Your task to perform on an android device: Open the phone app and click the voicemail tab. Image 0: 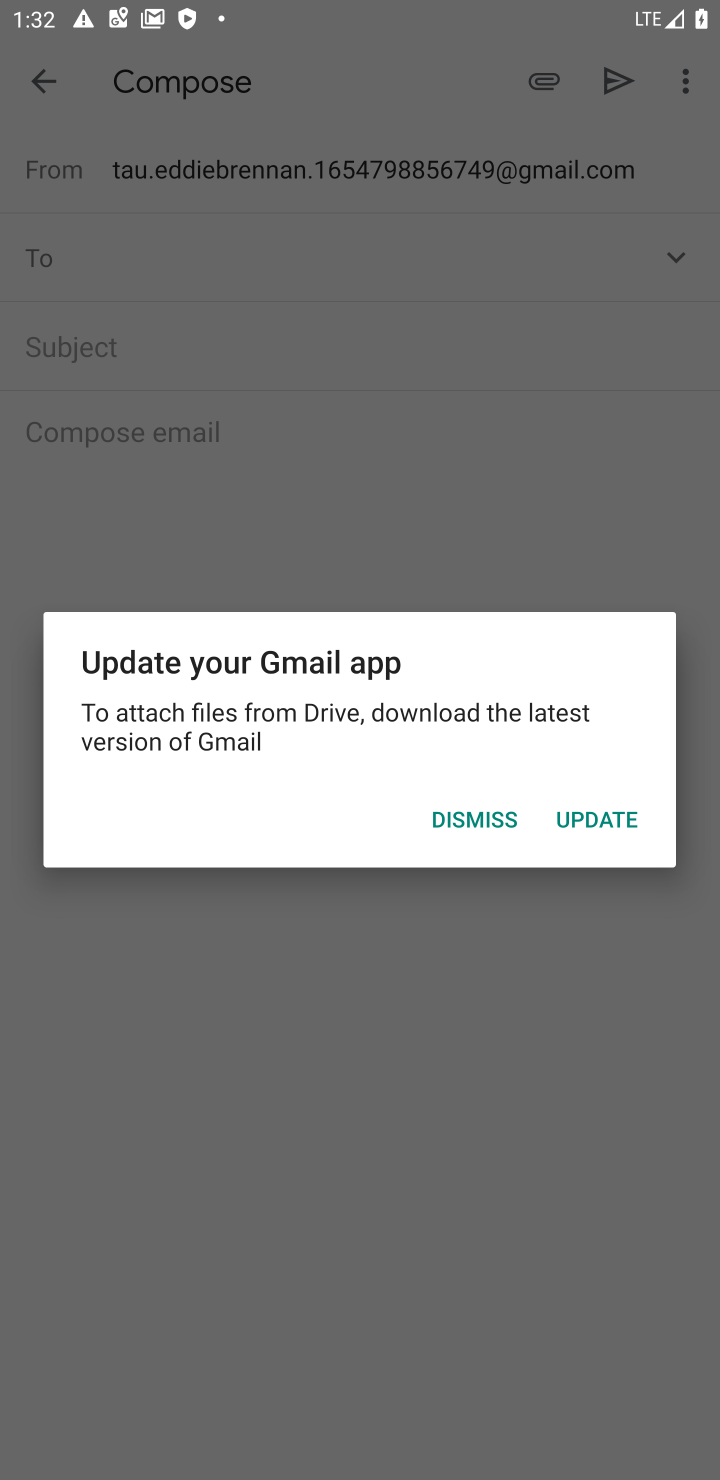
Step 0: press home button
Your task to perform on an android device: Open the phone app and click the voicemail tab. Image 1: 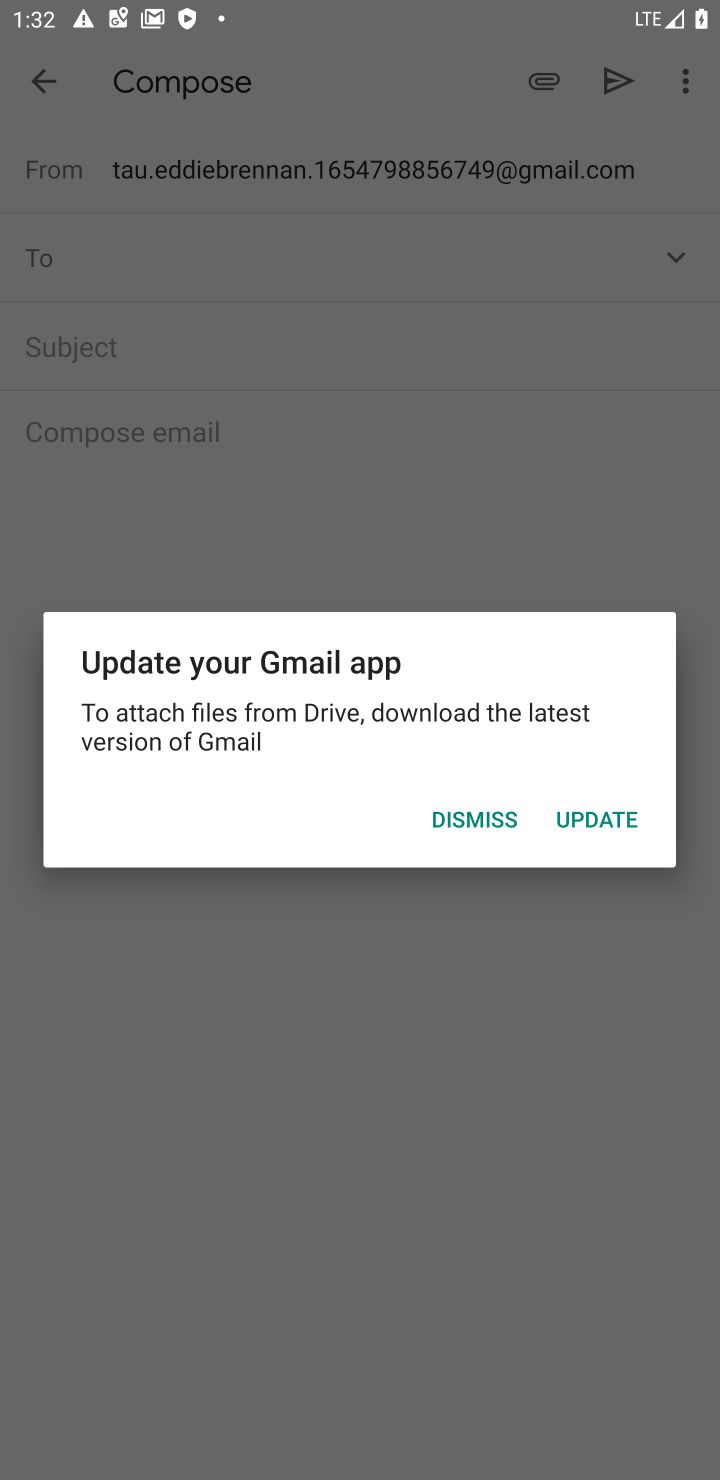
Step 1: press home button
Your task to perform on an android device: Open the phone app and click the voicemail tab. Image 2: 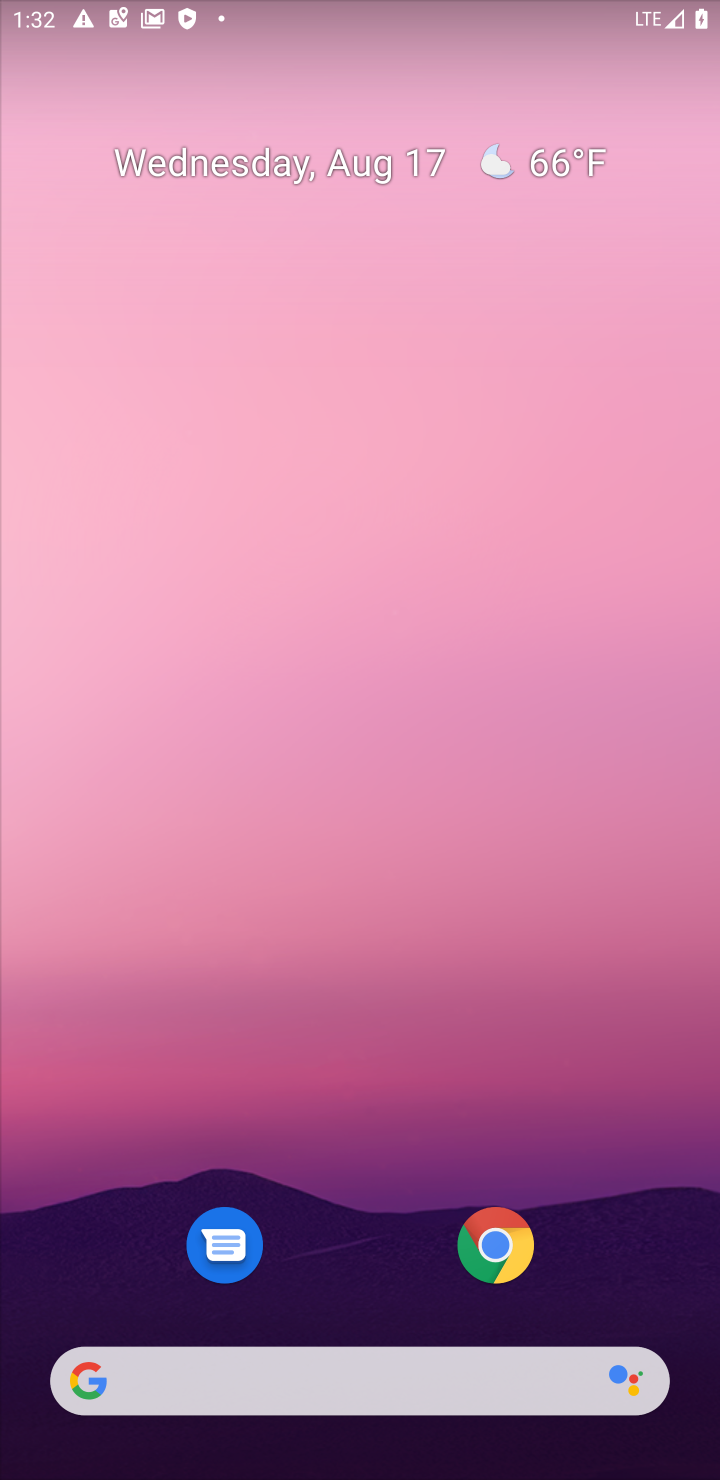
Step 2: press home button
Your task to perform on an android device: Open the phone app and click the voicemail tab. Image 3: 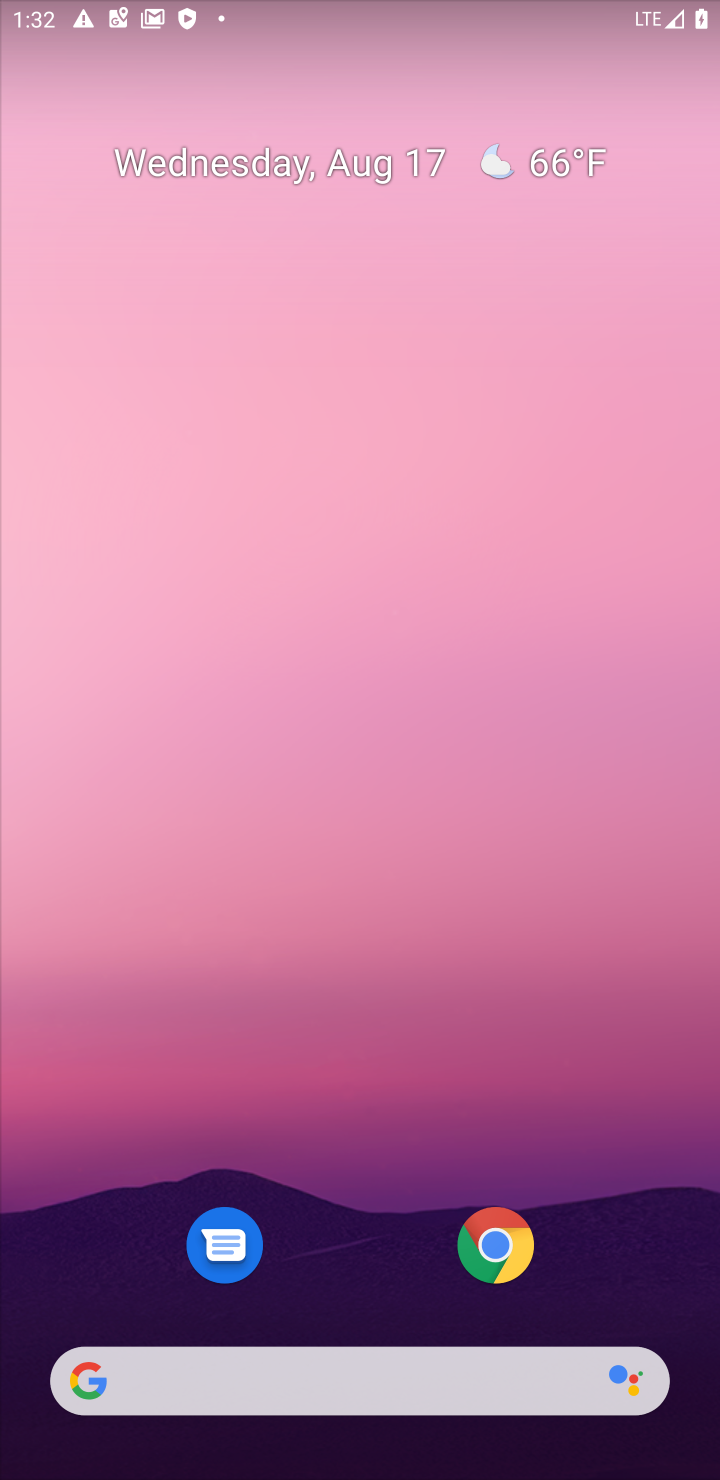
Step 3: drag from (388, 1234) to (411, 164)
Your task to perform on an android device: Open the phone app and click the voicemail tab. Image 4: 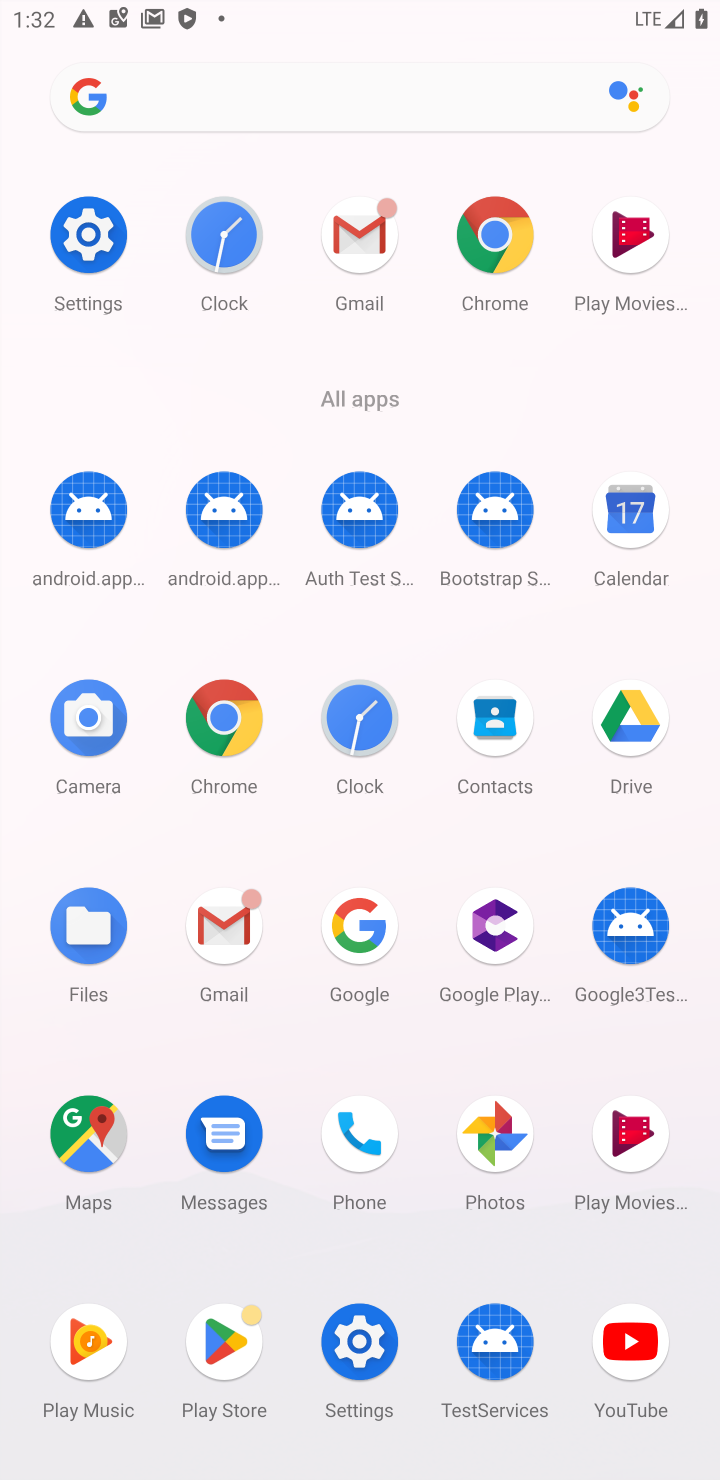
Step 4: click (357, 1118)
Your task to perform on an android device: Open the phone app and click the voicemail tab. Image 5: 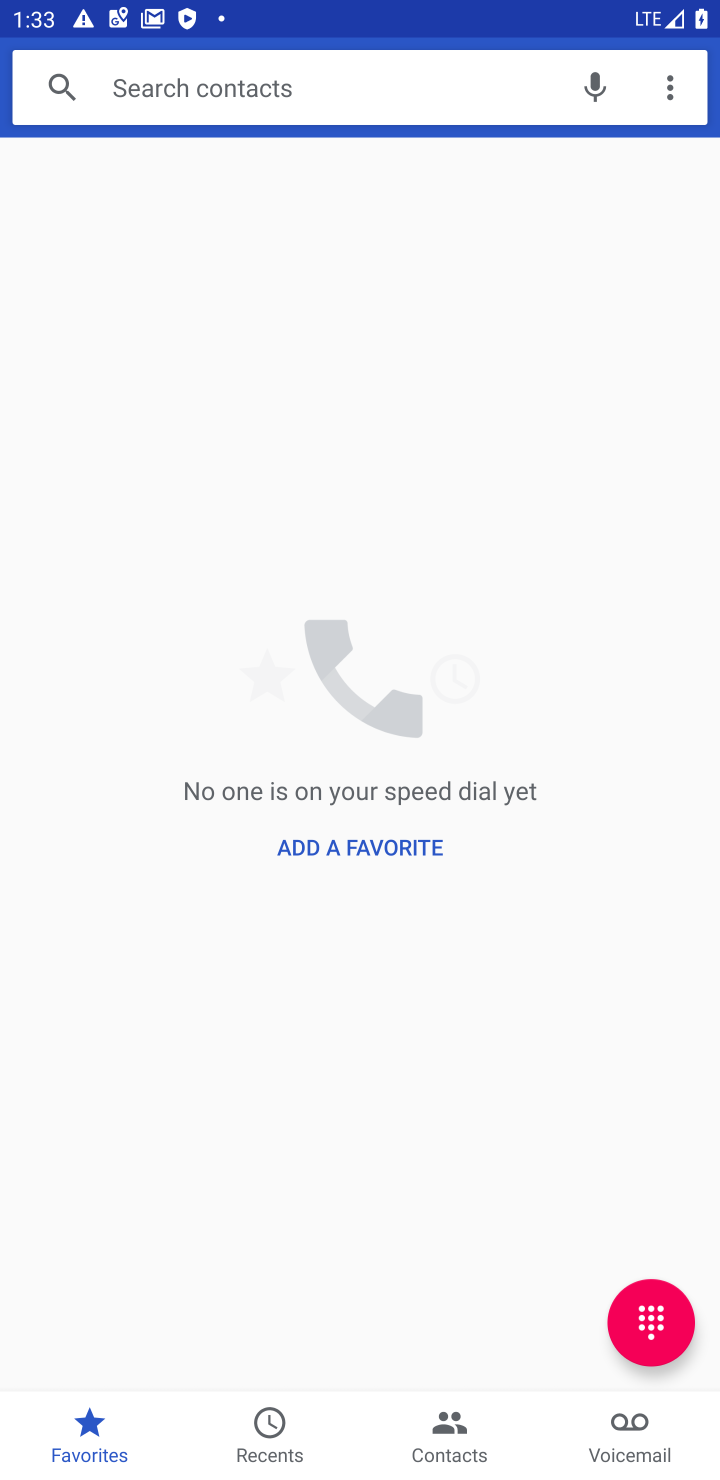
Step 5: click (607, 1422)
Your task to perform on an android device: Open the phone app and click the voicemail tab. Image 6: 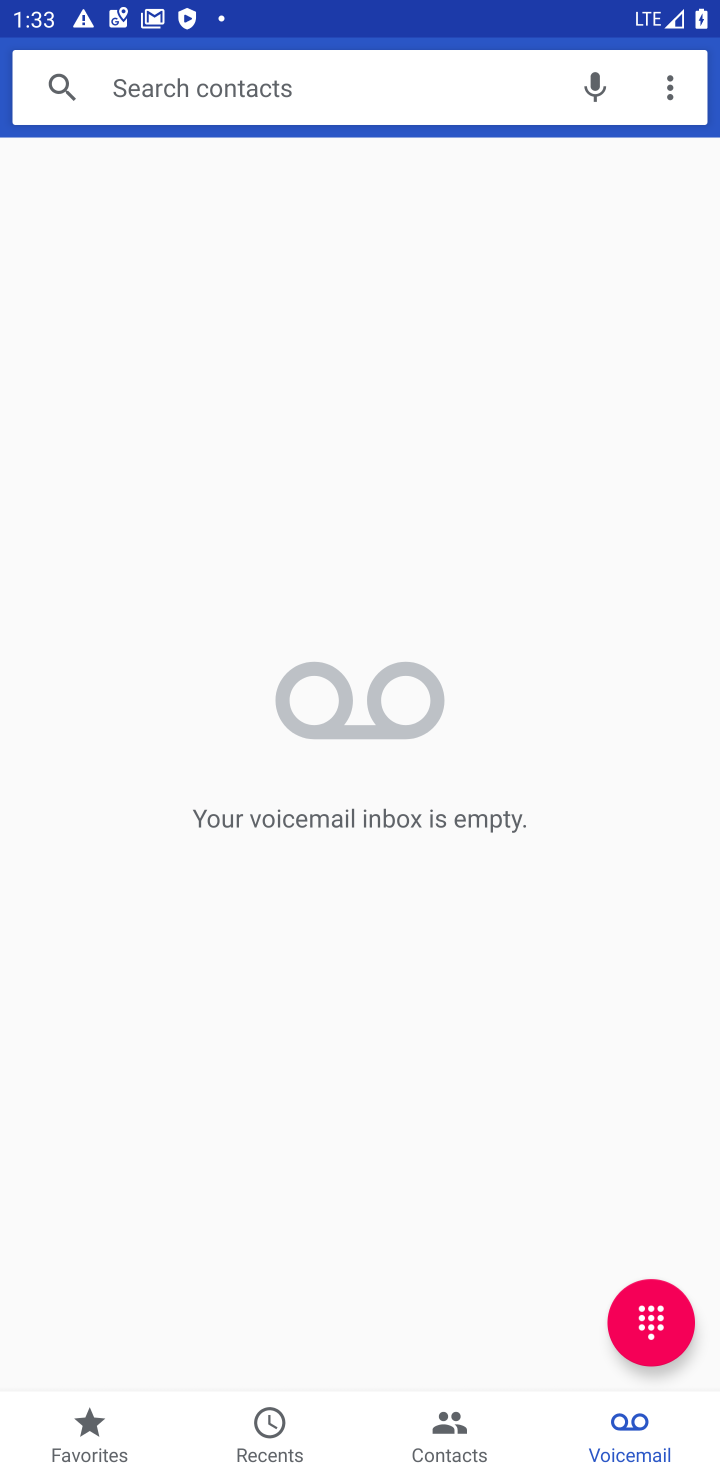
Step 6: task complete